Your task to perform on an android device: Open Yahoo.com Image 0: 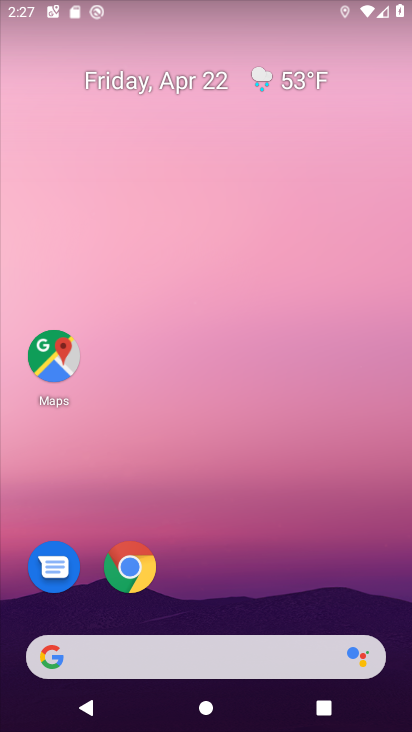
Step 0: click (260, 658)
Your task to perform on an android device: Open Yahoo.com Image 1: 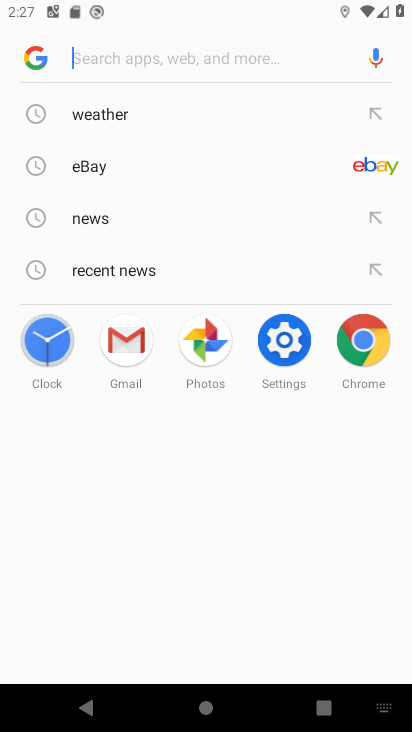
Step 1: type "yahoo.com"
Your task to perform on an android device: Open Yahoo.com Image 2: 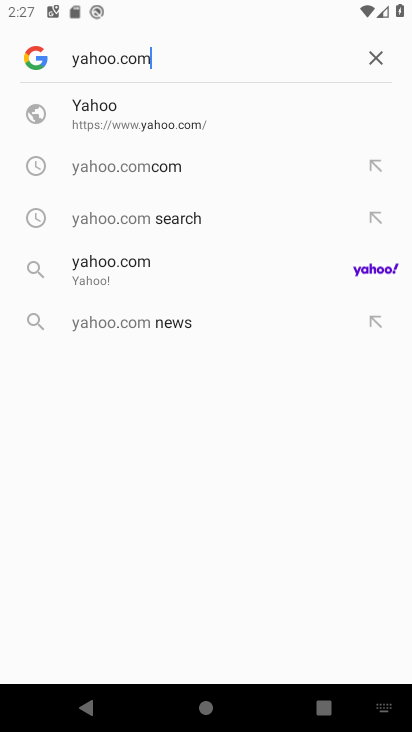
Step 2: click (181, 261)
Your task to perform on an android device: Open Yahoo.com Image 3: 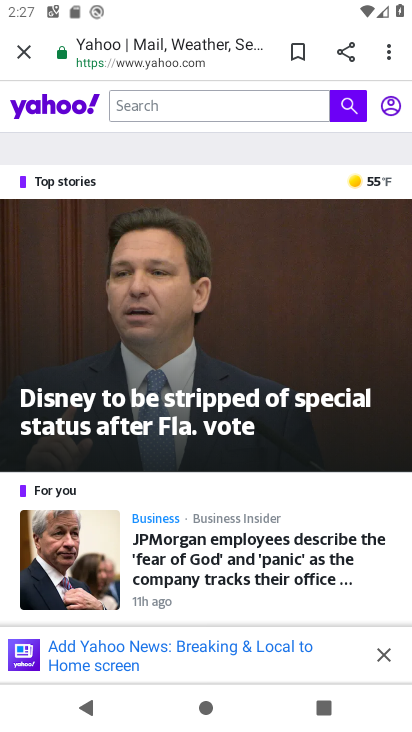
Step 3: task complete